Your task to perform on an android device: Go to Reddit.com Image 0: 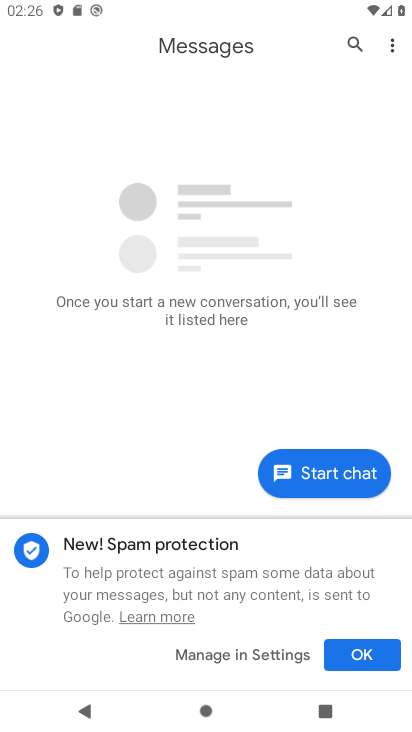
Step 0: press home button
Your task to perform on an android device: Go to Reddit.com Image 1: 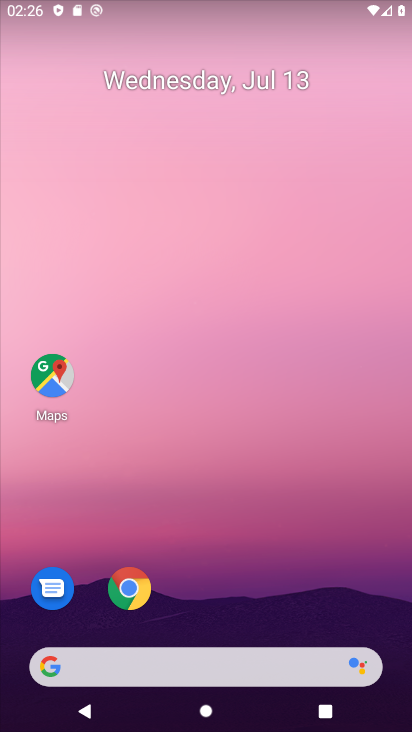
Step 1: drag from (292, 531) to (336, 124)
Your task to perform on an android device: Go to Reddit.com Image 2: 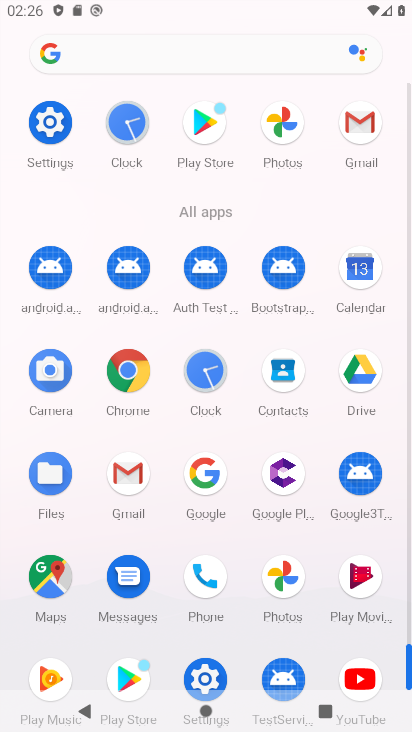
Step 2: click (117, 362)
Your task to perform on an android device: Go to Reddit.com Image 3: 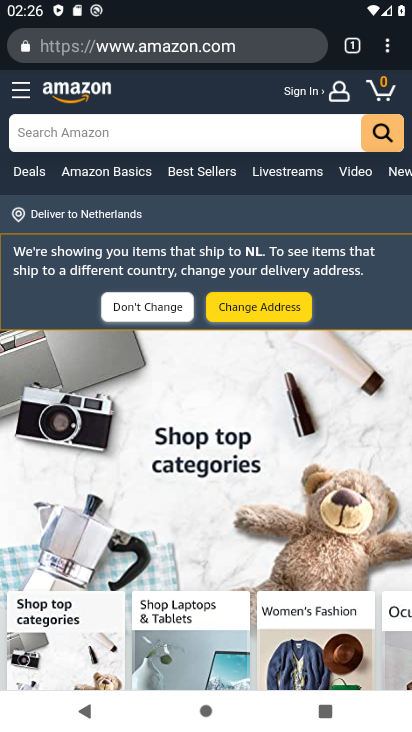
Step 3: click (174, 38)
Your task to perform on an android device: Go to Reddit.com Image 4: 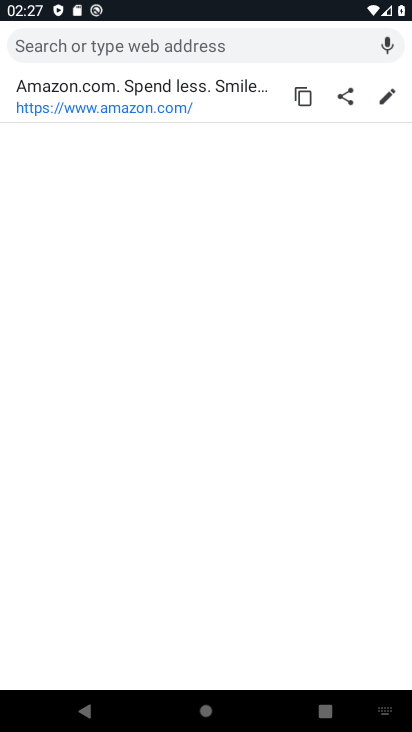
Step 4: type "Reddit.com"
Your task to perform on an android device: Go to Reddit.com Image 5: 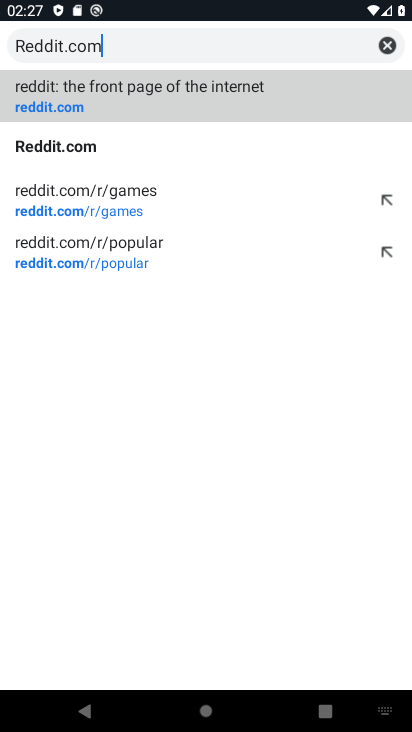
Step 5: click (50, 89)
Your task to perform on an android device: Go to Reddit.com Image 6: 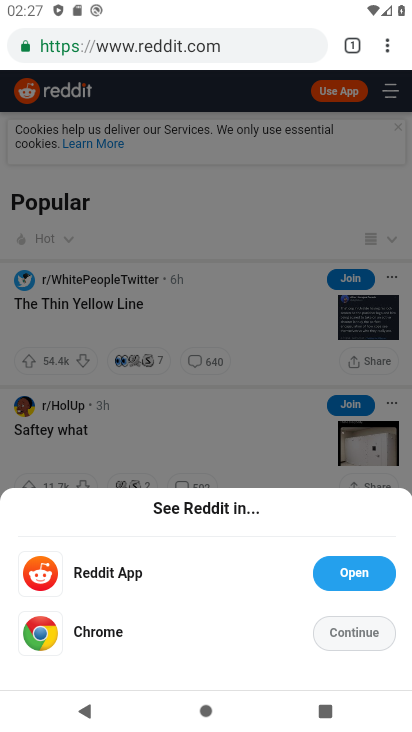
Step 6: task complete